Your task to perform on an android device: Open Google Chrome and click the shortcut for Amazon.com Image 0: 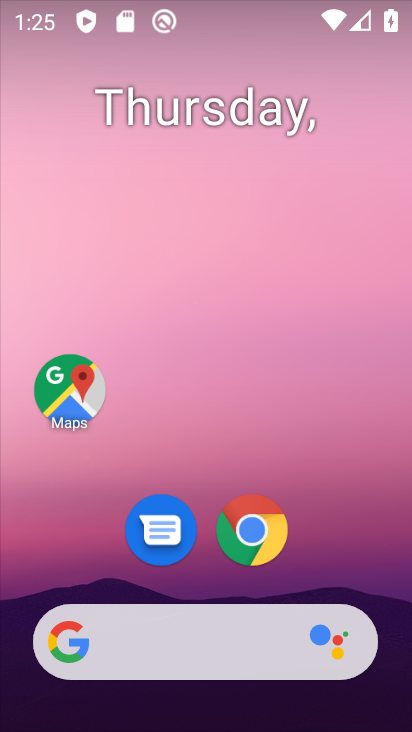
Step 0: click (394, 187)
Your task to perform on an android device: Open Google Chrome and click the shortcut for Amazon.com Image 1: 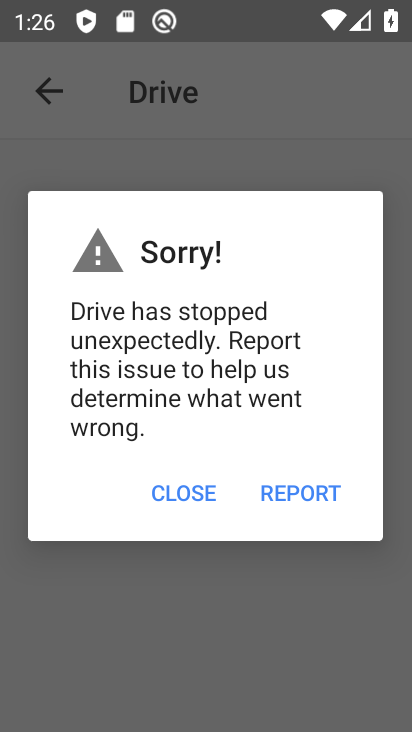
Step 1: press home button
Your task to perform on an android device: Open Google Chrome and click the shortcut for Amazon.com Image 2: 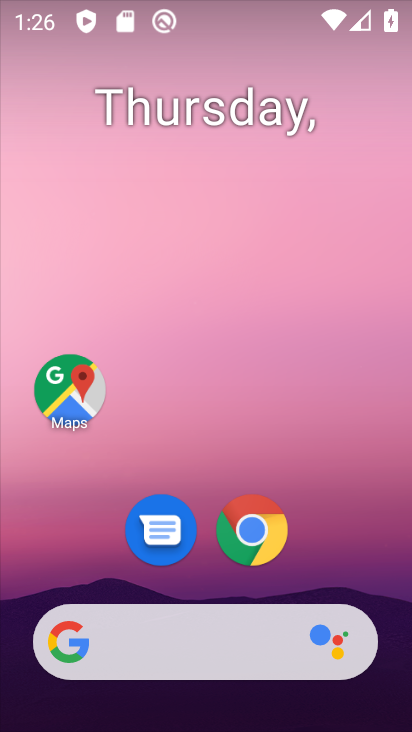
Step 2: click (255, 523)
Your task to perform on an android device: Open Google Chrome and click the shortcut for Amazon.com Image 3: 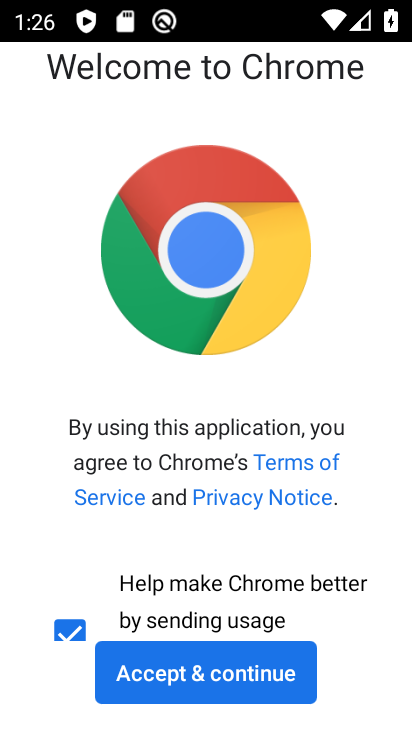
Step 3: click (210, 691)
Your task to perform on an android device: Open Google Chrome and click the shortcut for Amazon.com Image 4: 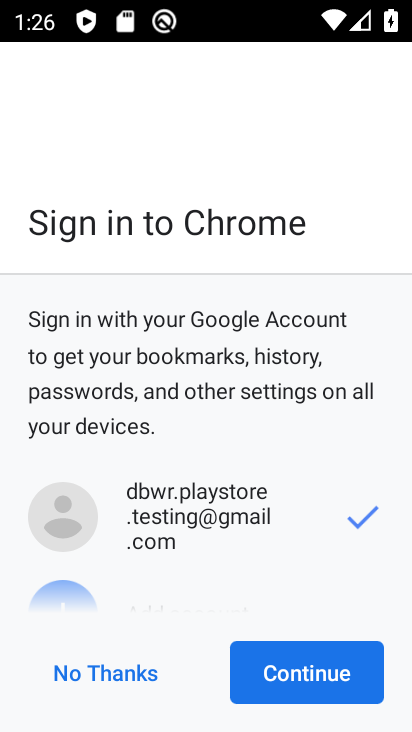
Step 4: click (282, 662)
Your task to perform on an android device: Open Google Chrome and click the shortcut for Amazon.com Image 5: 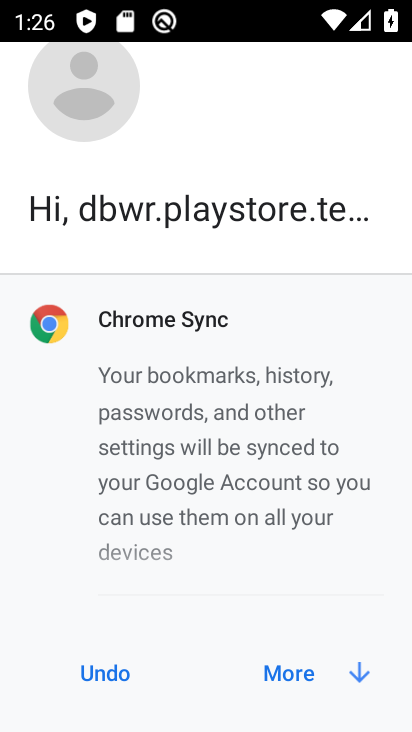
Step 5: click (300, 692)
Your task to perform on an android device: Open Google Chrome and click the shortcut for Amazon.com Image 6: 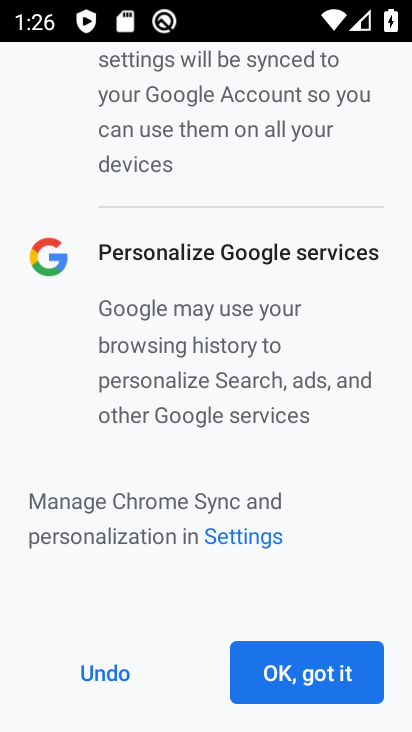
Step 6: click (303, 685)
Your task to perform on an android device: Open Google Chrome and click the shortcut for Amazon.com Image 7: 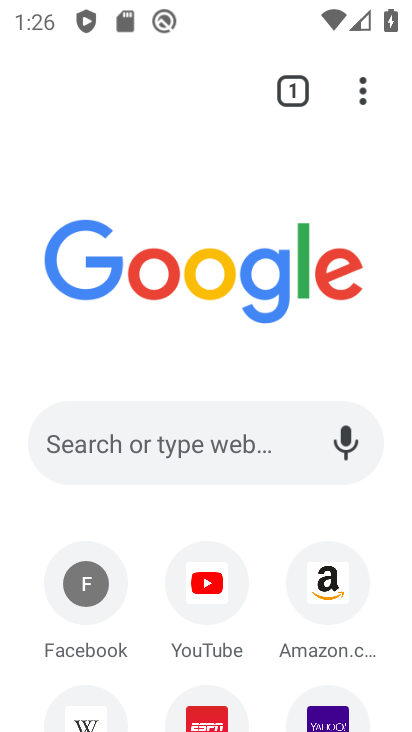
Step 7: click (345, 594)
Your task to perform on an android device: Open Google Chrome and click the shortcut for Amazon.com Image 8: 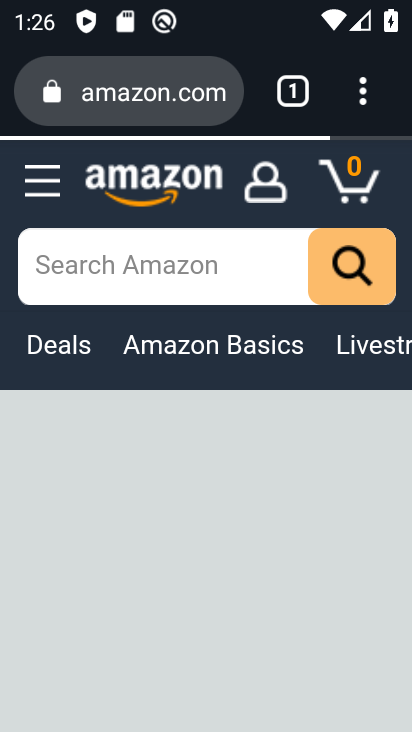
Step 8: task complete